Your task to perform on an android device: turn on javascript in the chrome app Image 0: 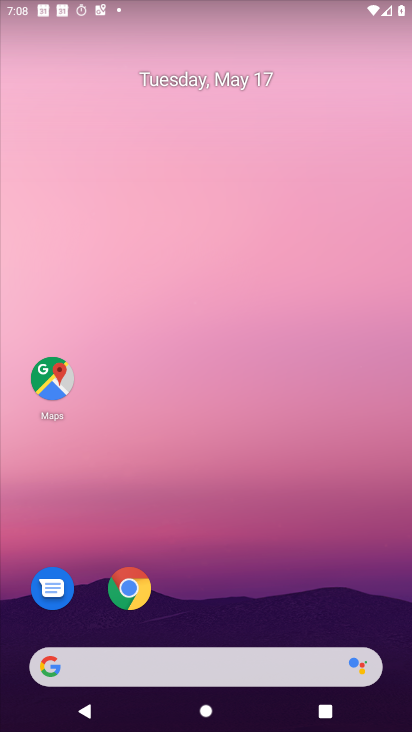
Step 0: click (131, 588)
Your task to perform on an android device: turn on javascript in the chrome app Image 1: 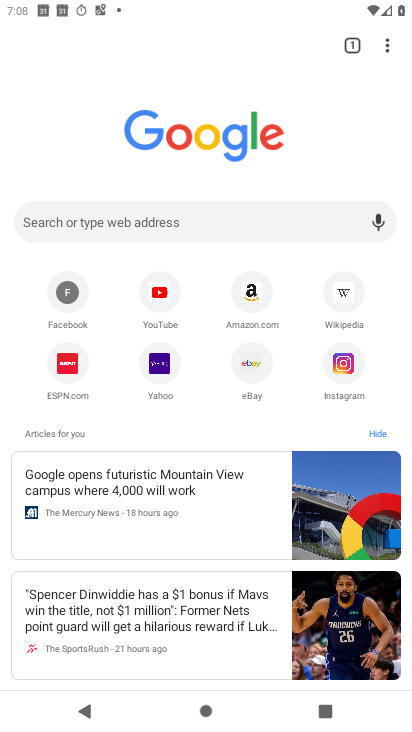
Step 1: click (389, 47)
Your task to perform on an android device: turn on javascript in the chrome app Image 2: 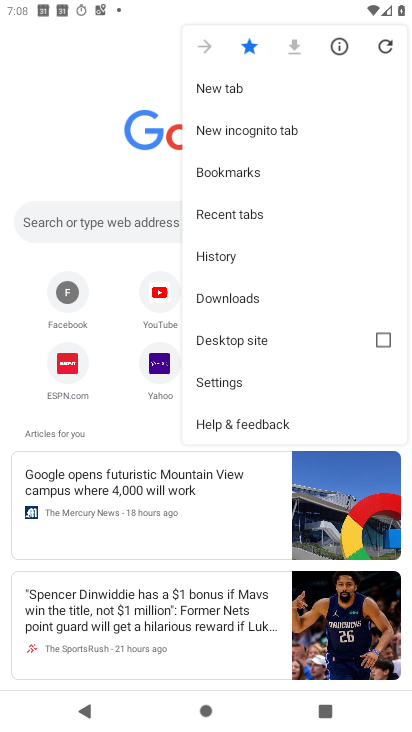
Step 2: click (222, 383)
Your task to perform on an android device: turn on javascript in the chrome app Image 3: 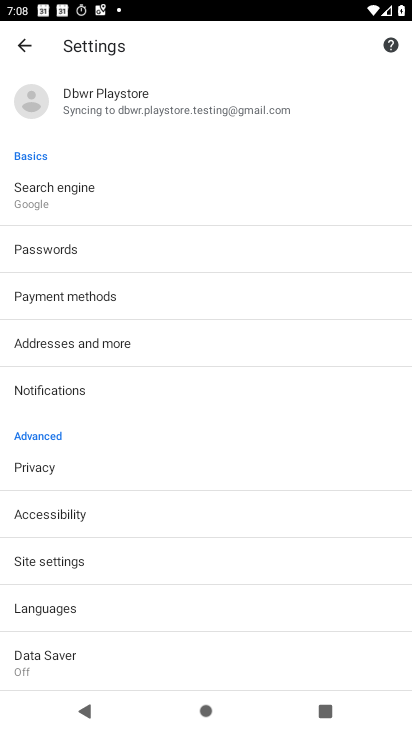
Step 3: click (74, 562)
Your task to perform on an android device: turn on javascript in the chrome app Image 4: 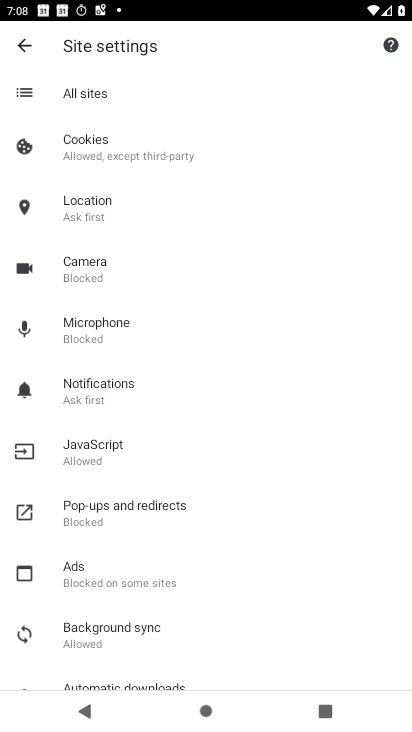
Step 4: click (84, 445)
Your task to perform on an android device: turn on javascript in the chrome app Image 5: 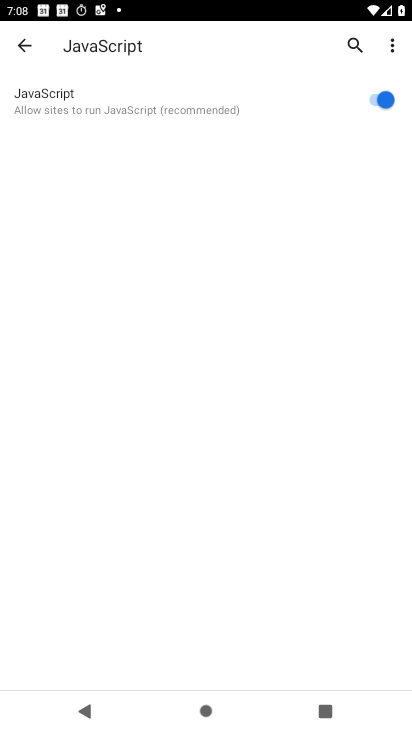
Step 5: task complete